Your task to perform on an android device: Show me popular videos on Youtube Image 0: 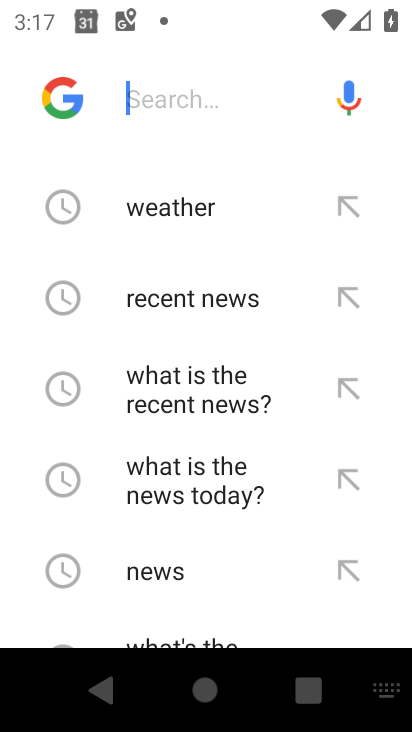
Step 0: press home button
Your task to perform on an android device: Show me popular videos on Youtube Image 1: 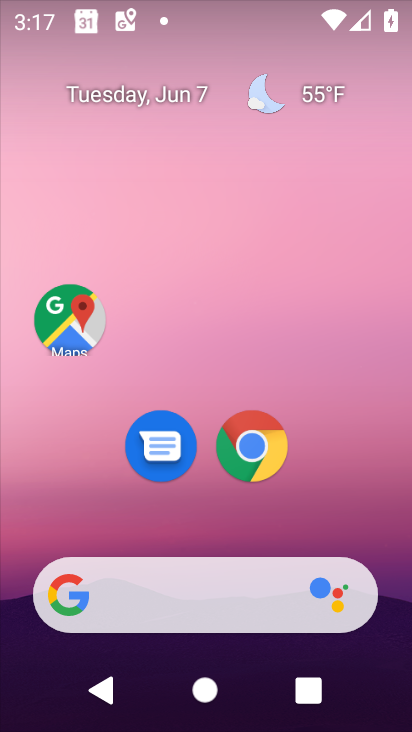
Step 1: drag from (193, 530) to (229, 22)
Your task to perform on an android device: Show me popular videos on Youtube Image 2: 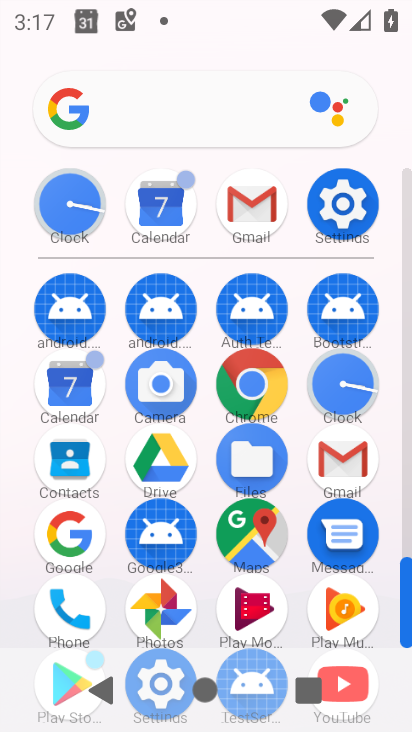
Step 2: drag from (296, 572) to (323, 276)
Your task to perform on an android device: Show me popular videos on Youtube Image 3: 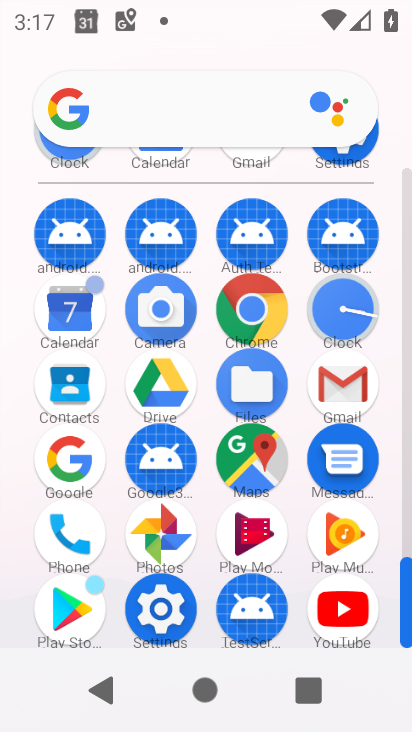
Step 3: click (343, 622)
Your task to perform on an android device: Show me popular videos on Youtube Image 4: 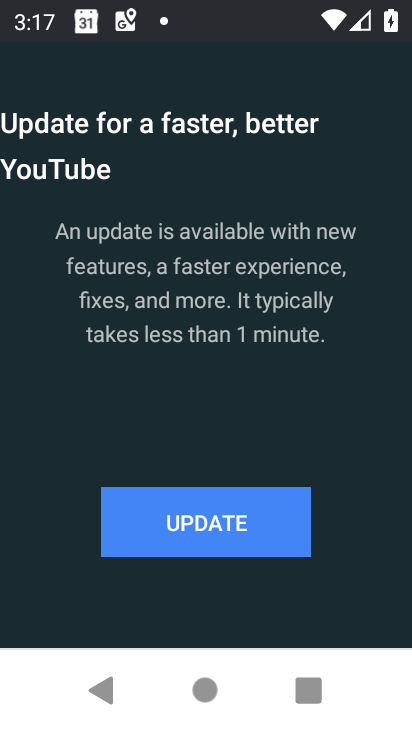
Step 4: click (271, 526)
Your task to perform on an android device: Show me popular videos on Youtube Image 5: 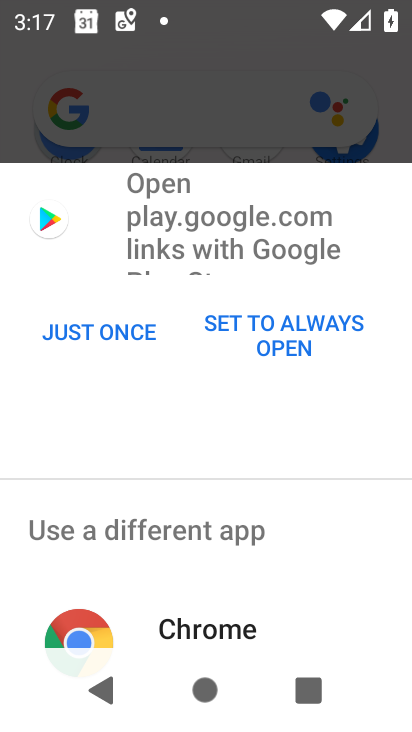
Step 5: click (87, 340)
Your task to perform on an android device: Show me popular videos on Youtube Image 6: 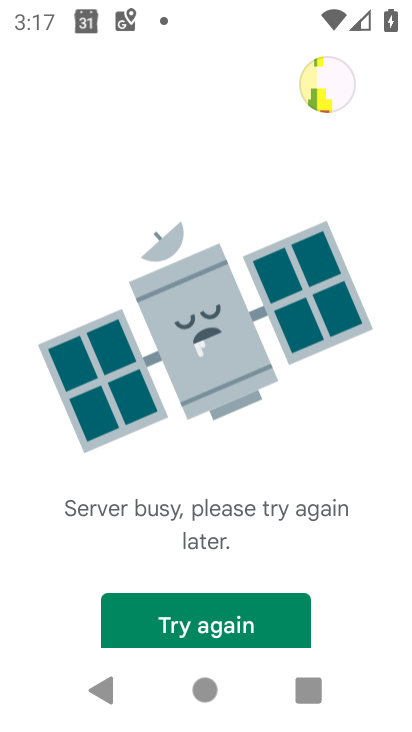
Step 6: click (209, 610)
Your task to perform on an android device: Show me popular videos on Youtube Image 7: 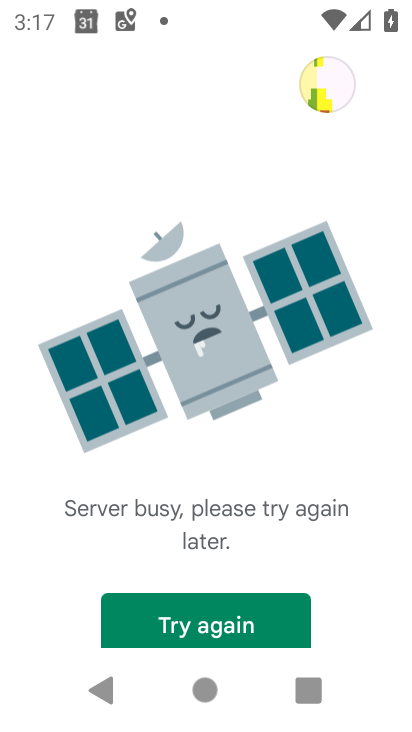
Step 7: click (198, 613)
Your task to perform on an android device: Show me popular videos on Youtube Image 8: 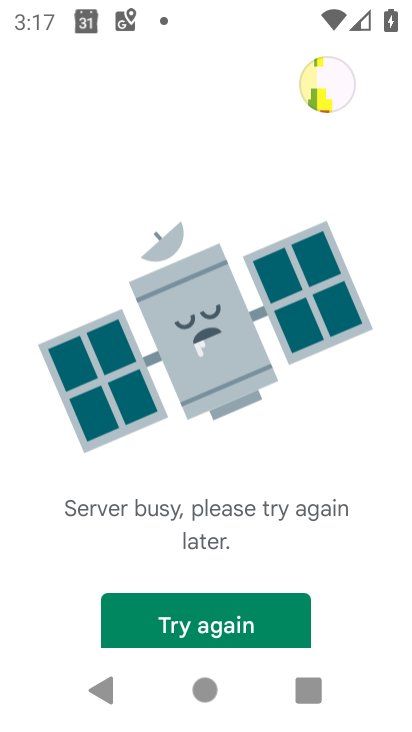
Step 8: task complete